Your task to perform on an android device: Go to internet settings Image 0: 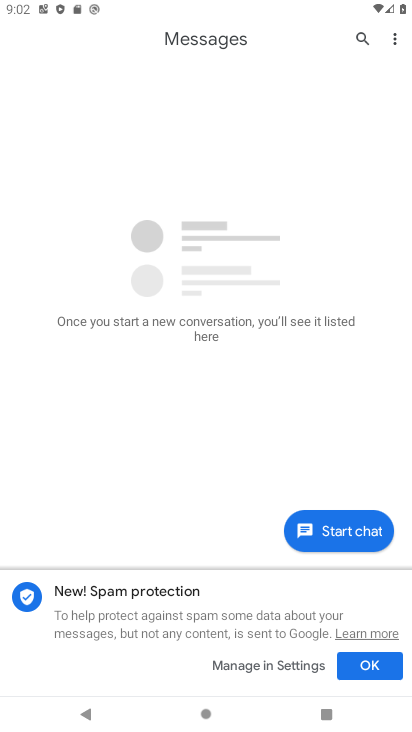
Step 0: press home button
Your task to perform on an android device: Go to internet settings Image 1: 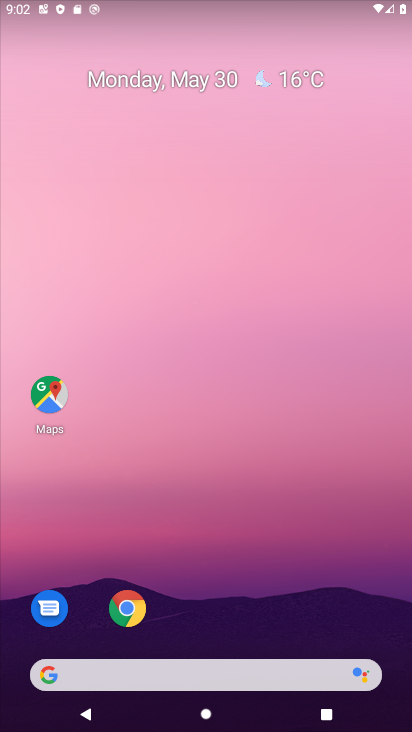
Step 1: drag from (404, 700) to (359, 59)
Your task to perform on an android device: Go to internet settings Image 2: 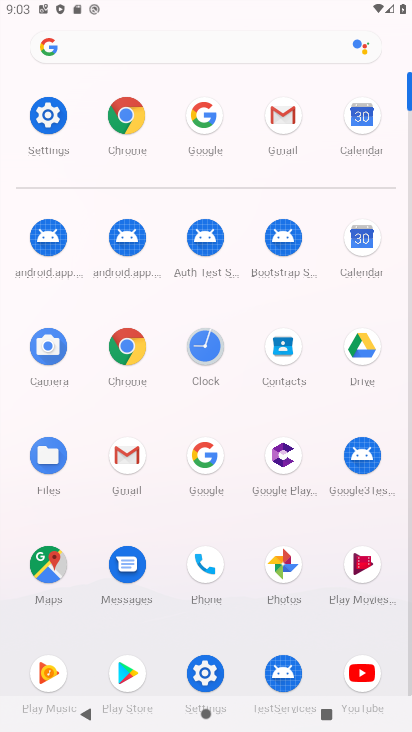
Step 2: click (207, 679)
Your task to perform on an android device: Go to internet settings Image 3: 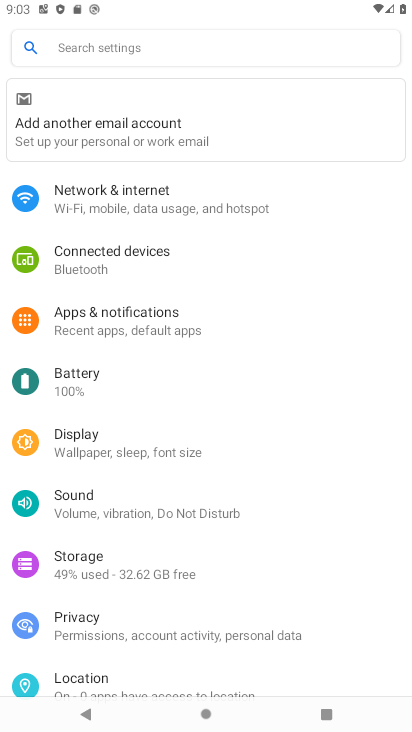
Step 3: drag from (312, 673) to (318, 329)
Your task to perform on an android device: Go to internet settings Image 4: 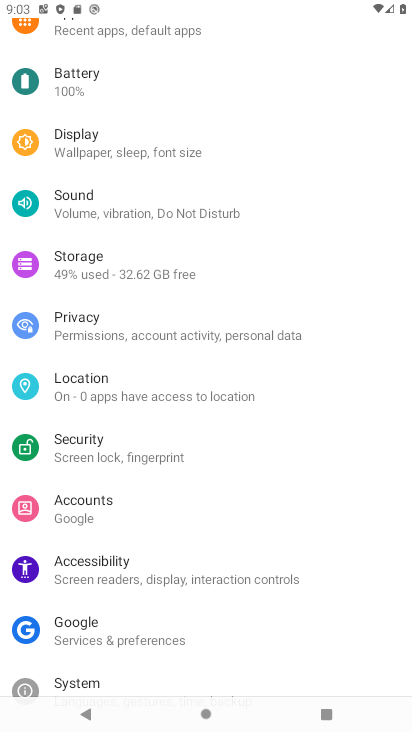
Step 4: drag from (309, 151) to (345, 533)
Your task to perform on an android device: Go to internet settings Image 5: 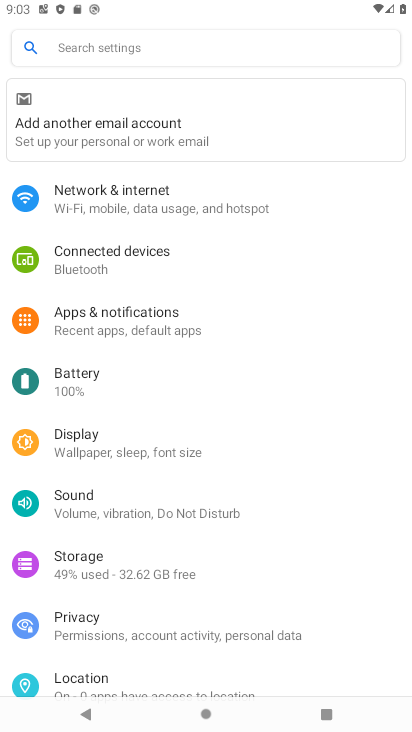
Step 5: click (99, 199)
Your task to perform on an android device: Go to internet settings Image 6: 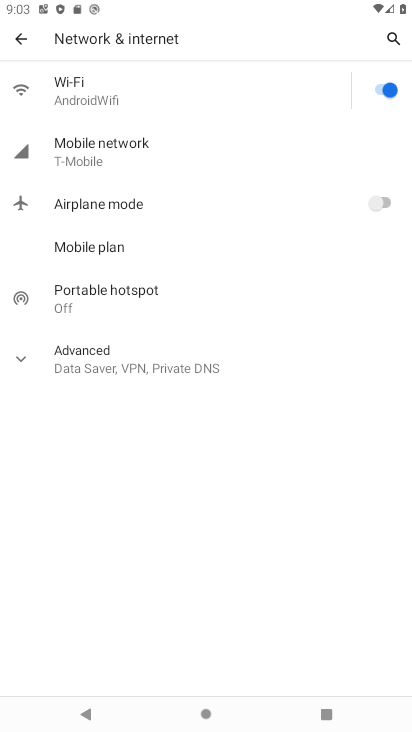
Step 6: click (85, 145)
Your task to perform on an android device: Go to internet settings Image 7: 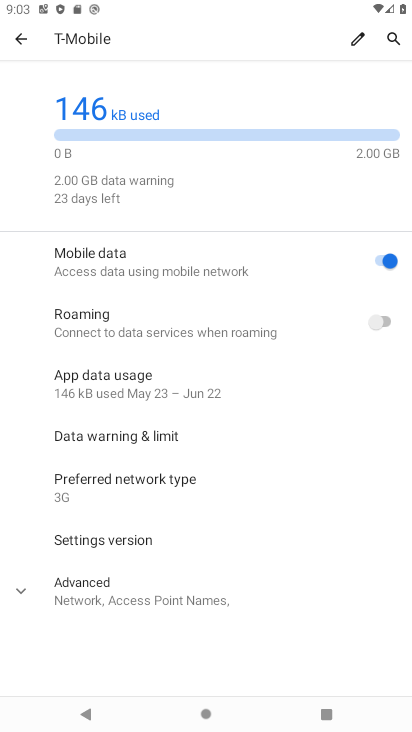
Step 7: task complete